Your task to perform on an android device: Go to Amazon Image 0: 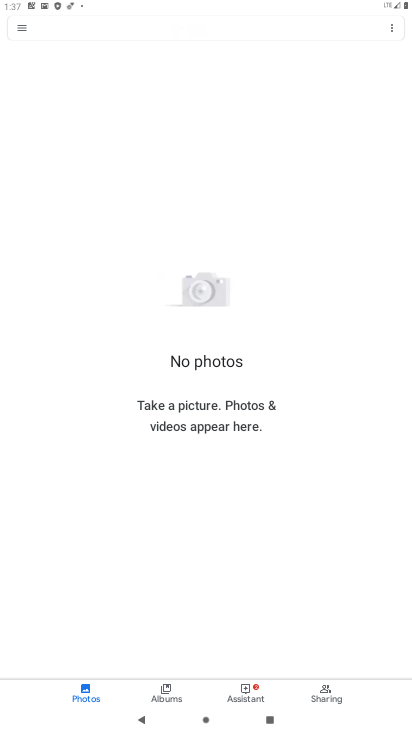
Step 0: press home button
Your task to perform on an android device: Go to Amazon Image 1: 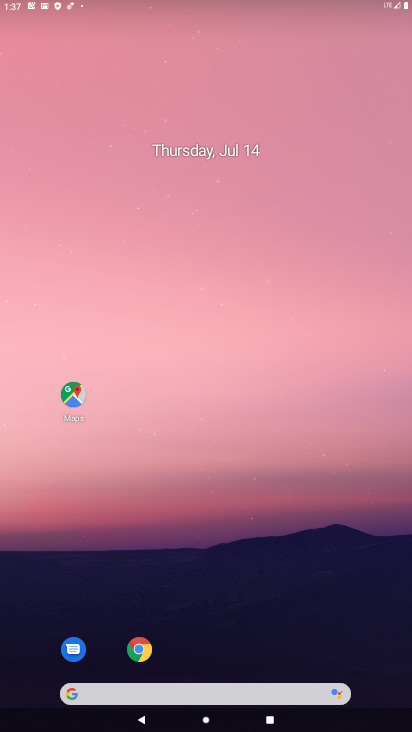
Step 1: drag from (390, 665) to (275, 13)
Your task to perform on an android device: Go to Amazon Image 2: 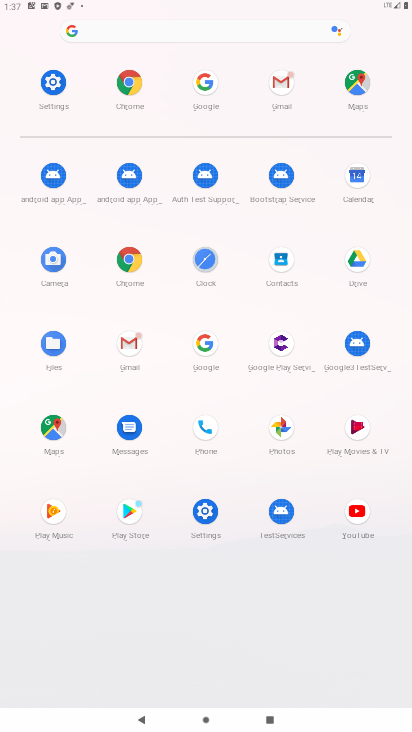
Step 2: click (208, 352)
Your task to perform on an android device: Go to Amazon Image 3: 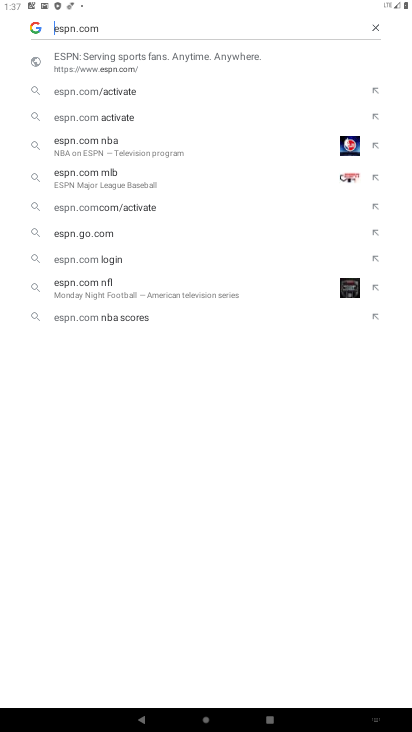
Step 3: click (381, 27)
Your task to perform on an android device: Go to Amazon Image 4: 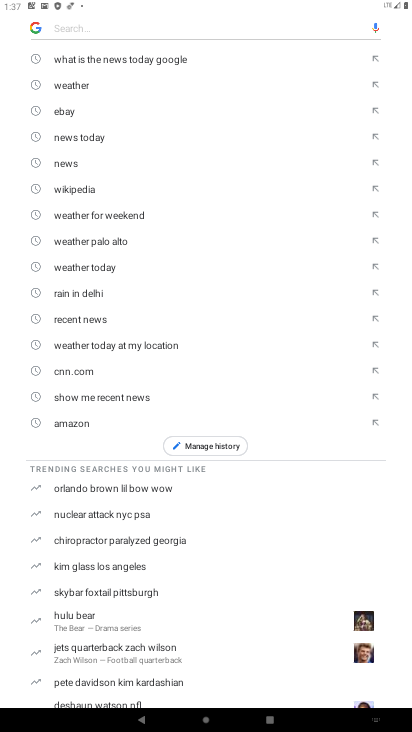
Step 4: type "Amazon"
Your task to perform on an android device: Go to Amazon Image 5: 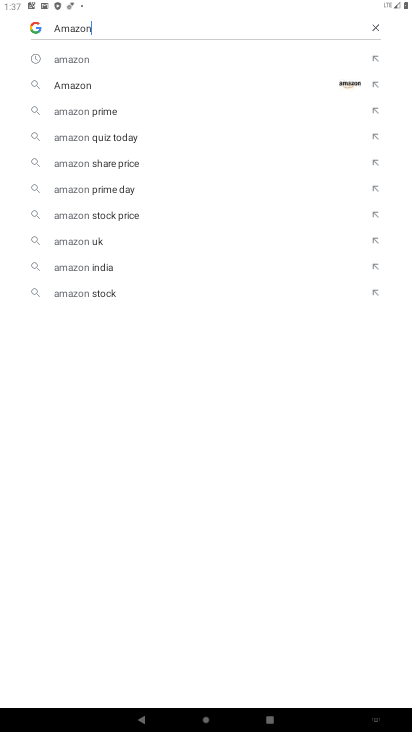
Step 5: click (79, 82)
Your task to perform on an android device: Go to Amazon Image 6: 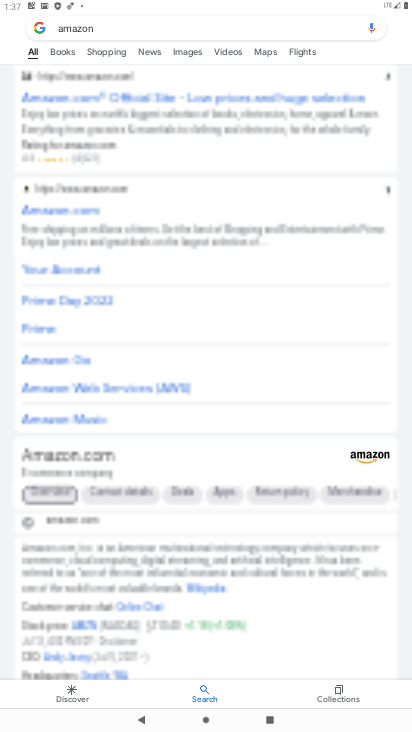
Step 6: task complete